Your task to perform on an android device: Go to Maps Image 0: 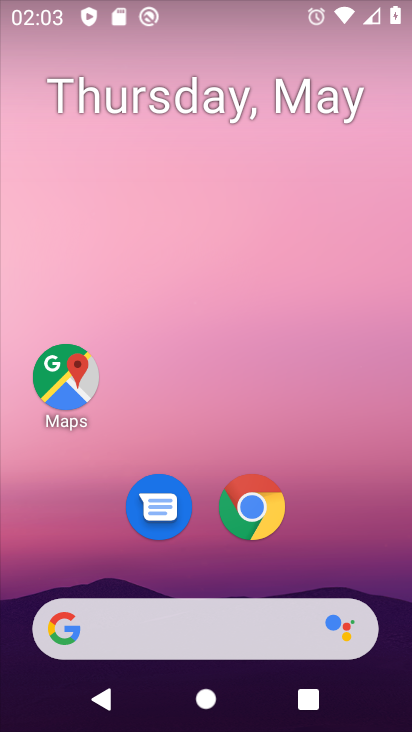
Step 0: click (46, 408)
Your task to perform on an android device: Go to Maps Image 1: 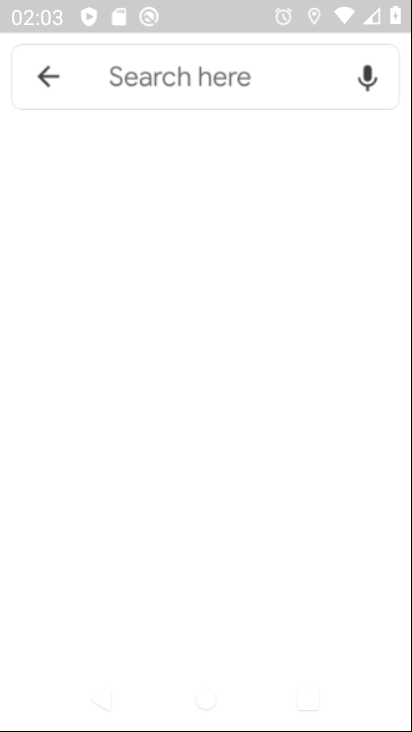
Step 1: task complete